Your task to perform on an android device: Search for jbl flip 4 on target, select the first entry, add it to the cart, then select checkout. Image 0: 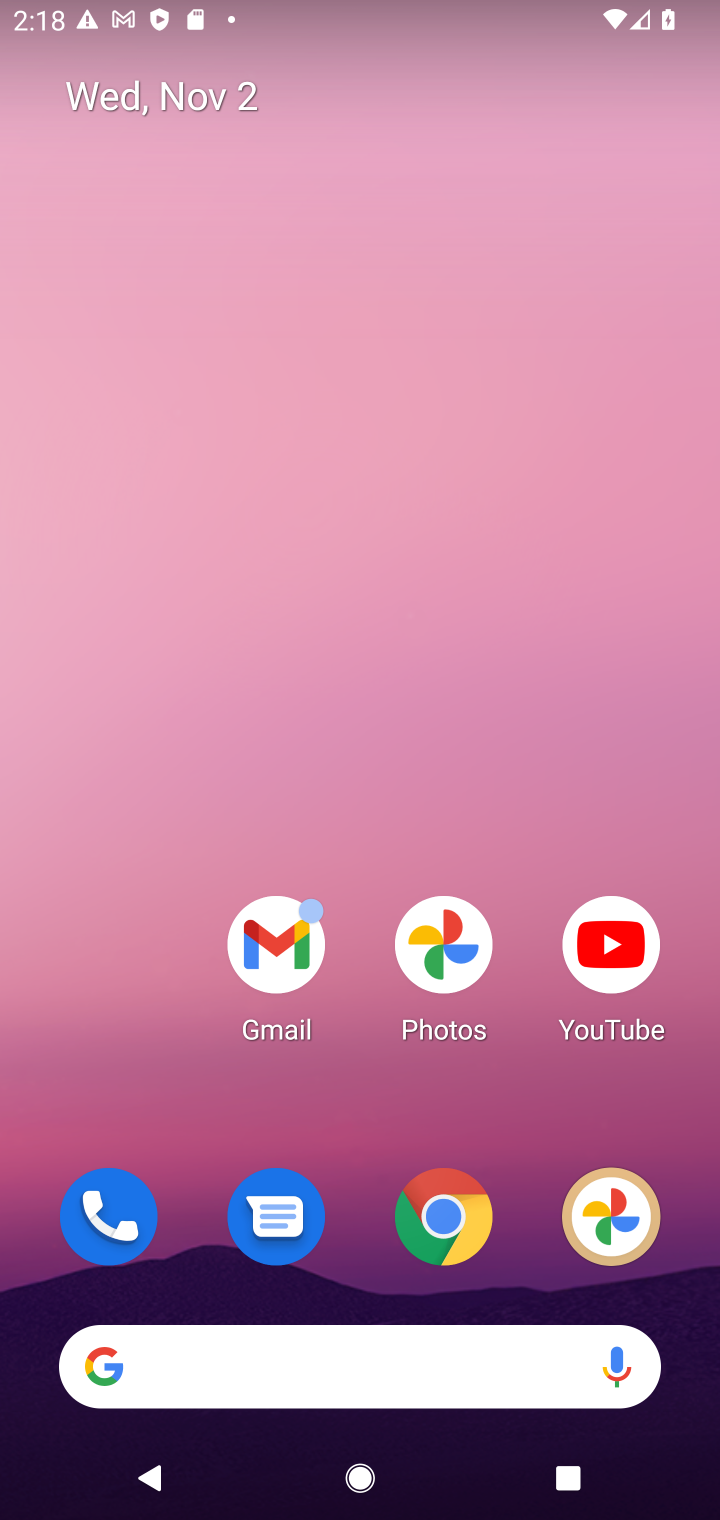
Step 0: click (444, 1206)
Your task to perform on an android device: Search for jbl flip 4 on target, select the first entry, add it to the cart, then select checkout. Image 1: 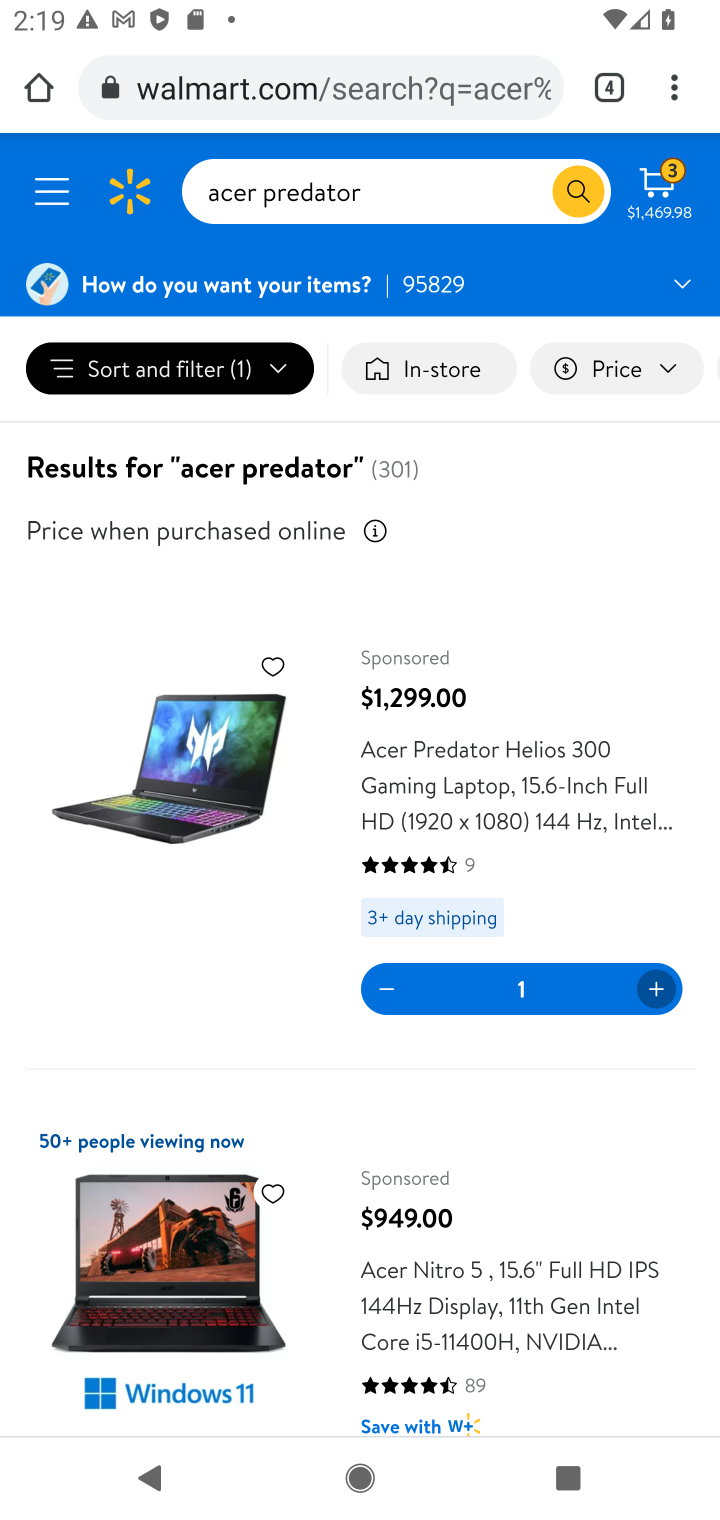
Step 1: click (615, 78)
Your task to perform on an android device: Search for jbl flip 4 on target, select the first entry, add it to the cart, then select checkout. Image 2: 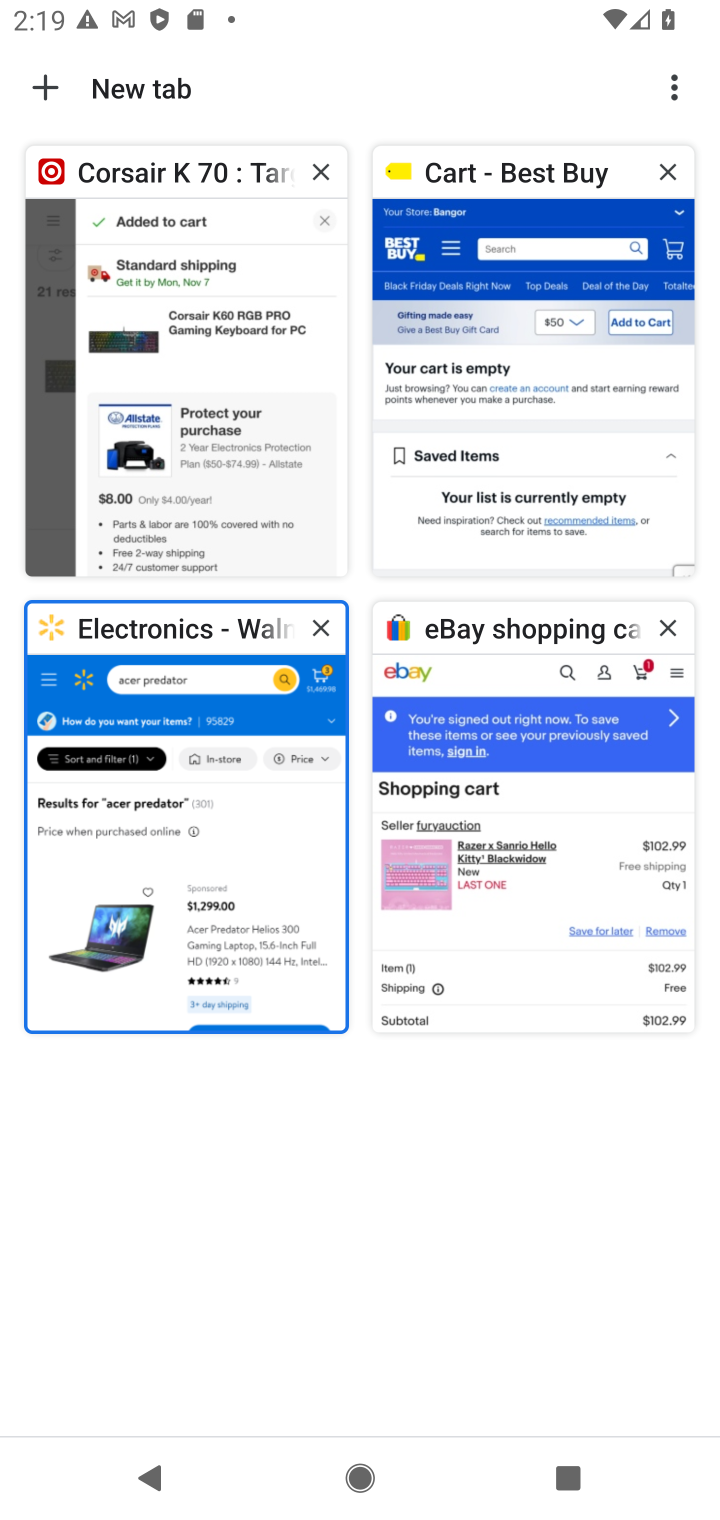
Step 2: click (200, 306)
Your task to perform on an android device: Search for jbl flip 4 on target, select the first entry, add it to the cart, then select checkout. Image 3: 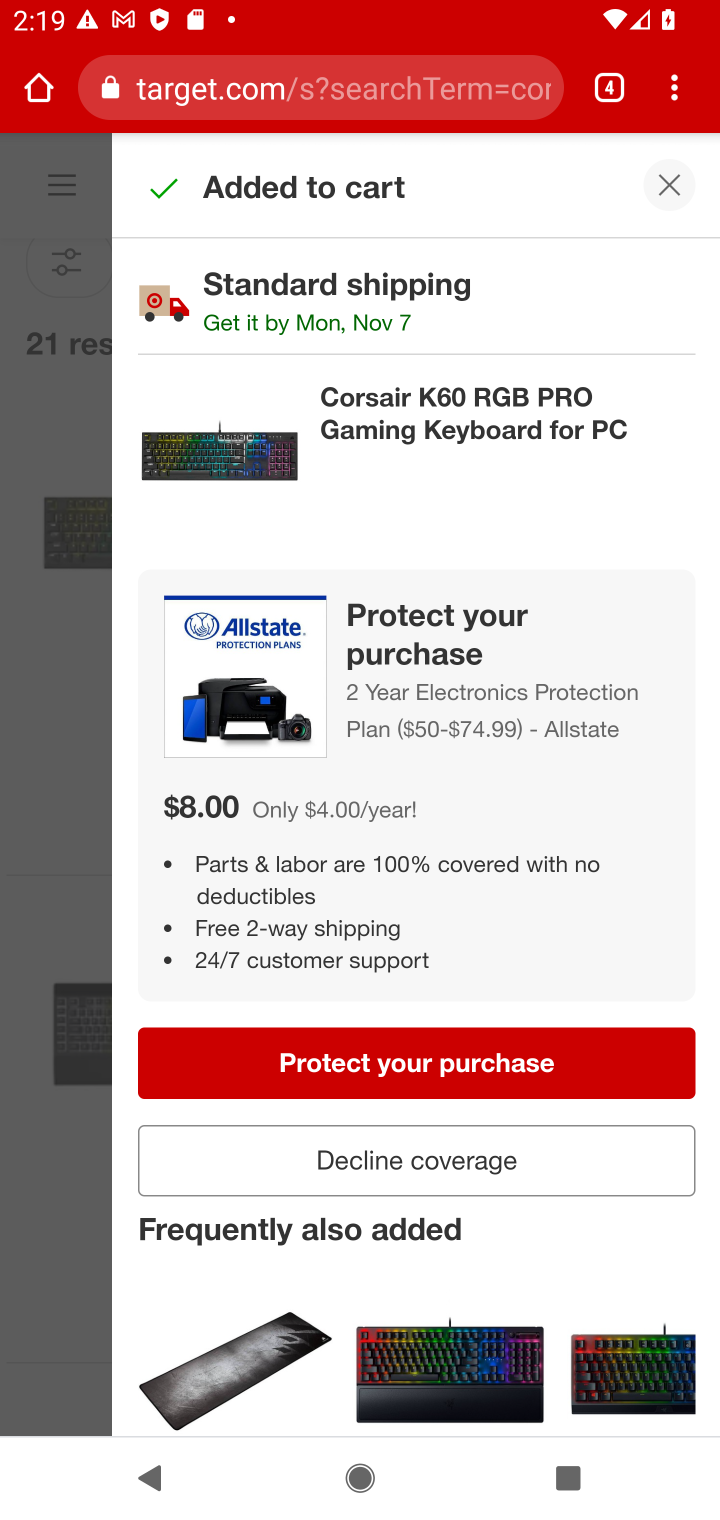
Step 3: click (668, 185)
Your task to perform on an android device: Search for jbl flip 4 on target, select the first entry, add it to the cart, then select checkout. Image 4: 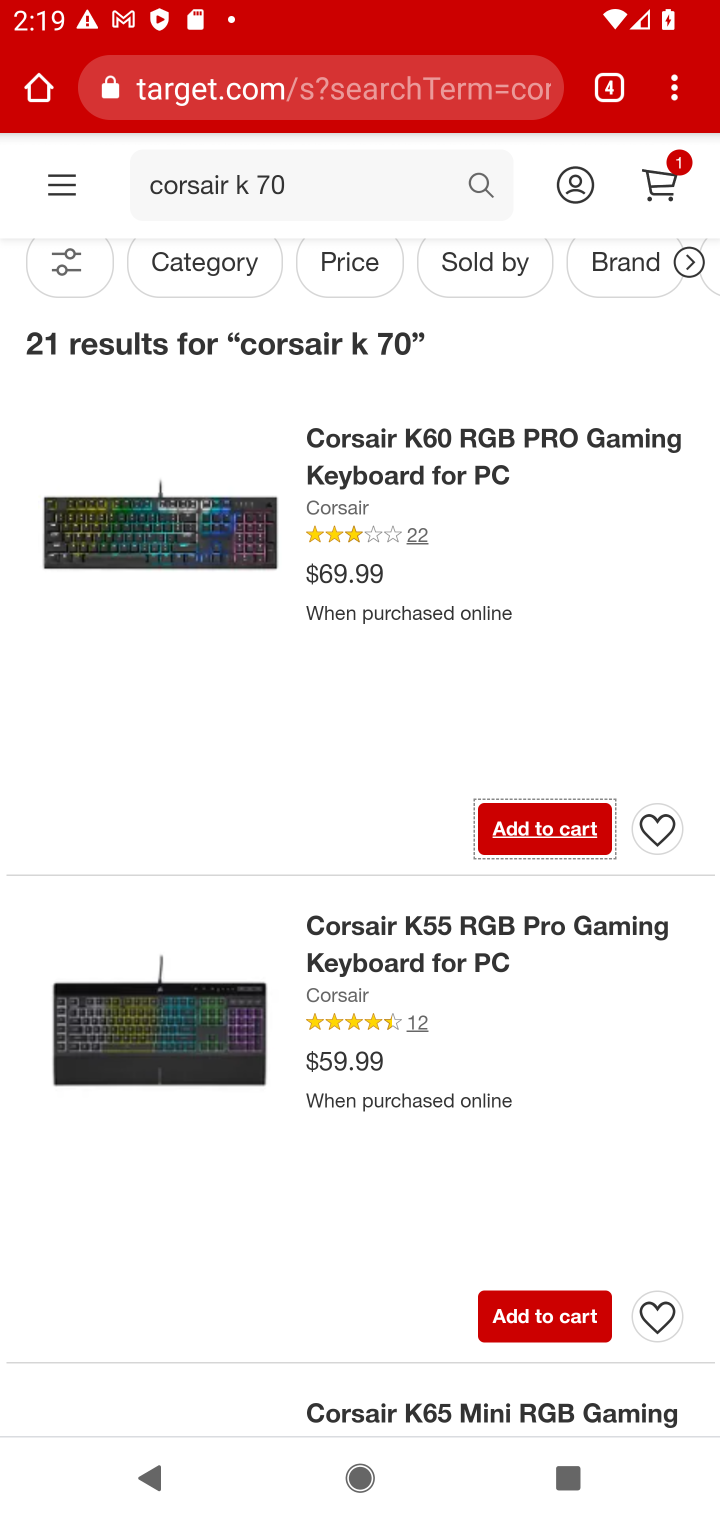
Step 4: click (405, 188)
Your task to perform on an android device: Search for jbl flip 4 on target, select the first entry, add it to the cart, then select checkout. Image 5: 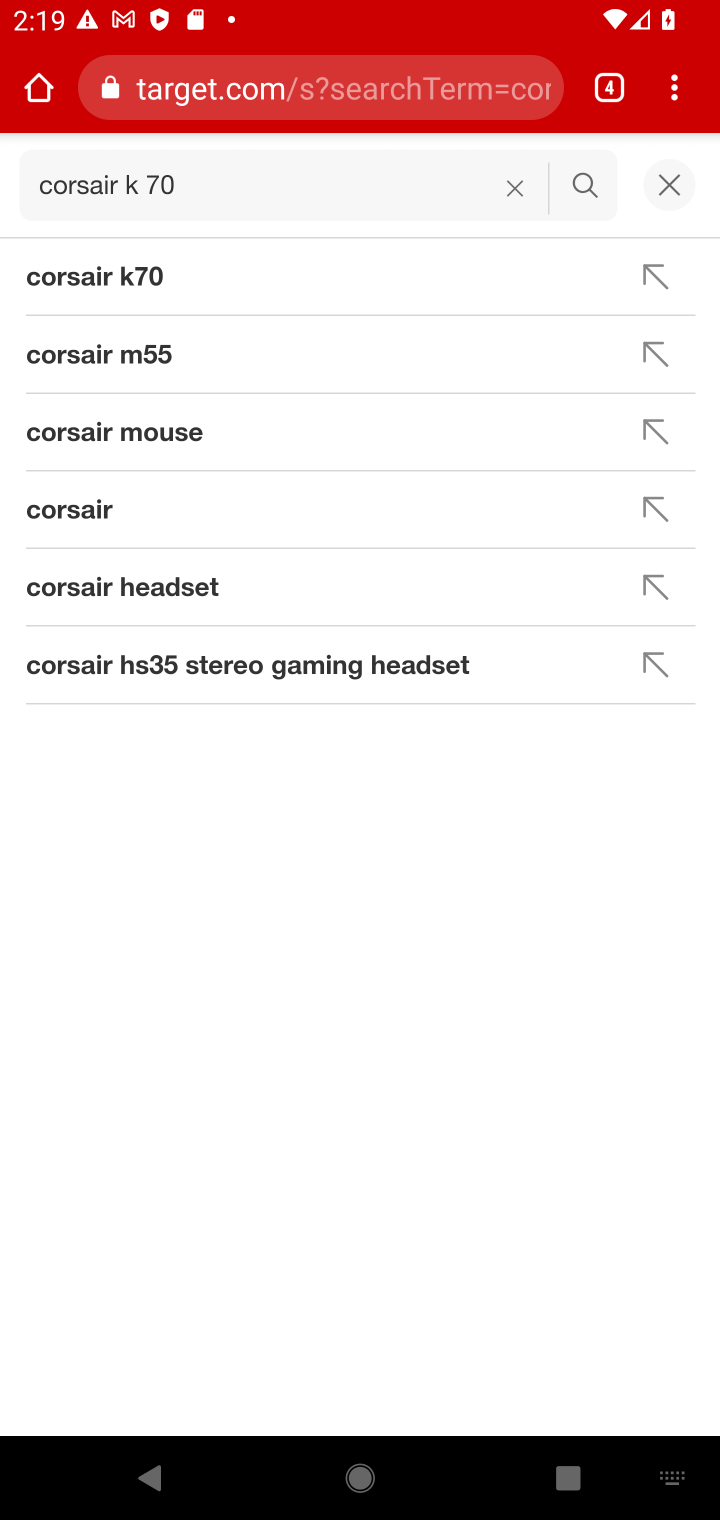
Step 5: click (514, 188)
Your task to perform on an android device: Search for jbl flip 4 on target, select the first entry, add it to the cart, then select checkout. Image 6: 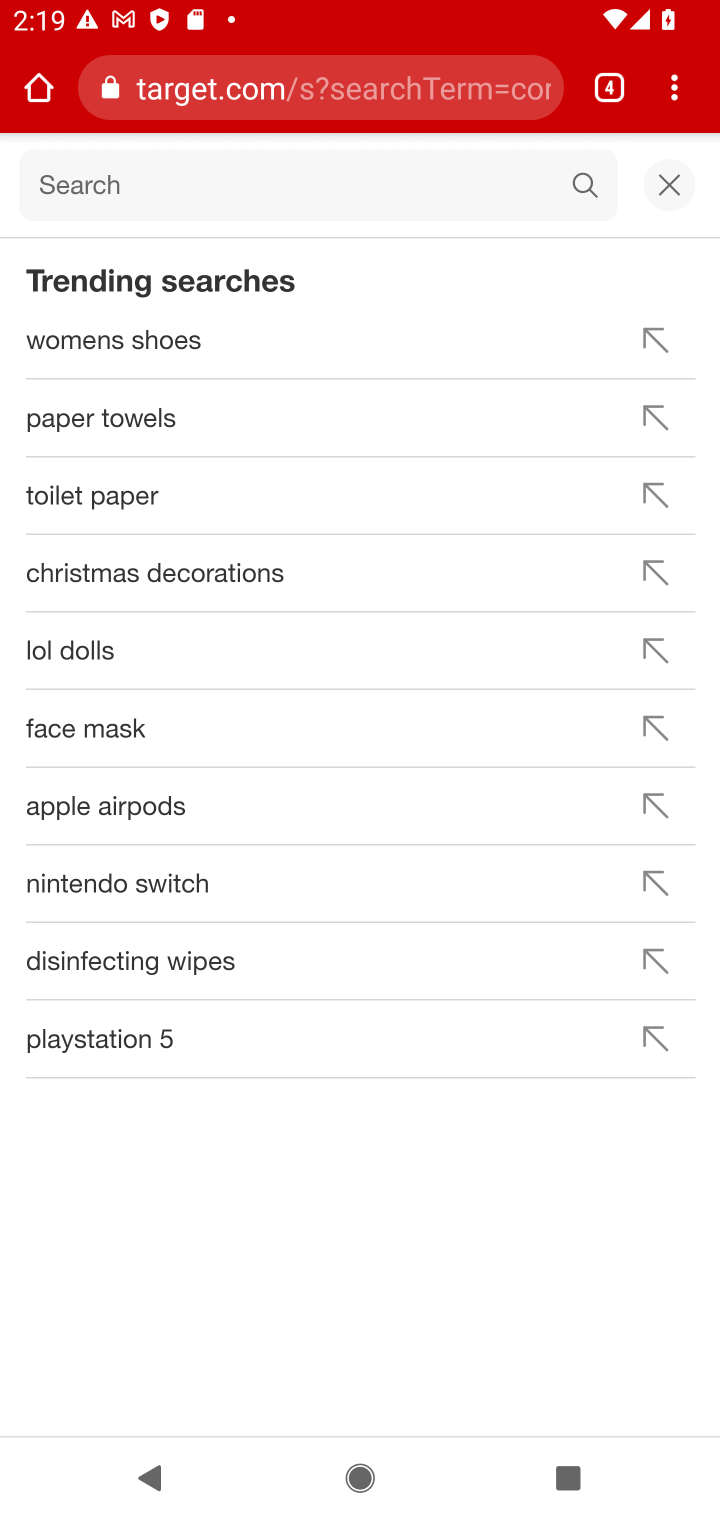
Step 6: click (248, 177)
Your task to perform on an android device: Search for jbl flip 4 on target, select the first entry, add it to the cart, then select checkout. Image 7: 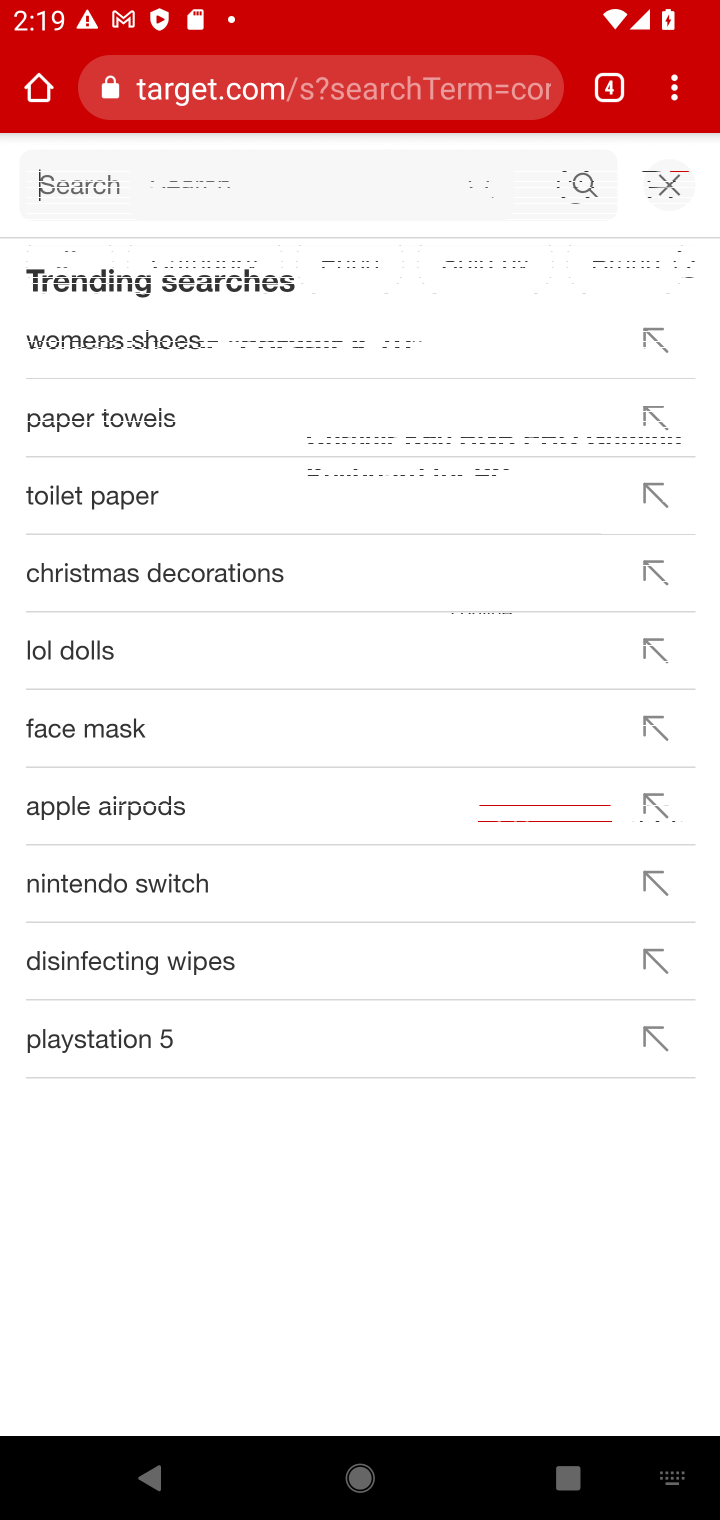
Step 7: type "jbl flip 4"
Your task to perform on an android device: Search for jbl flip 4 on target, select the first entry, add it to the cart, then select checkout. Image 8: 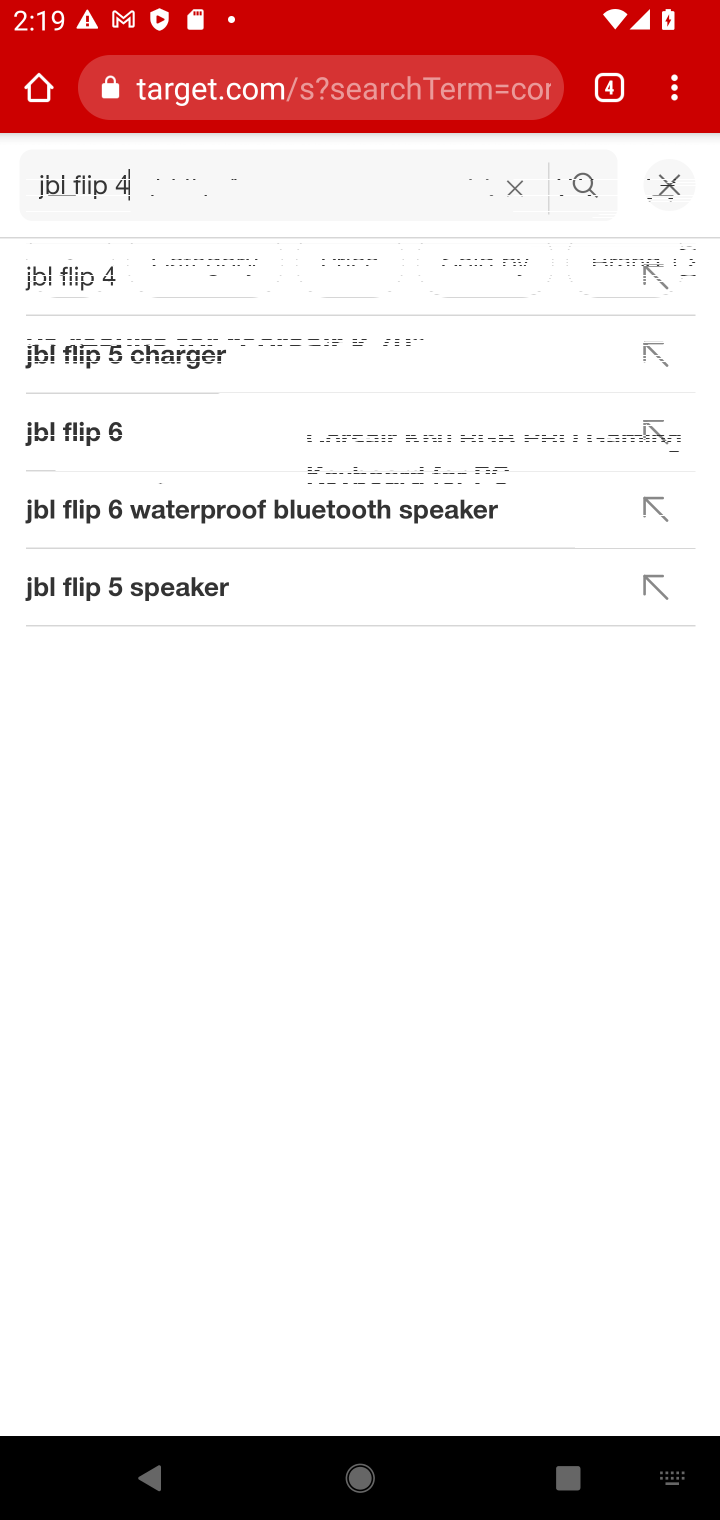
Step 8: click (77, 271)
Your task to perform on an android device: Search for jbl flip 4 on target, select the first entry, add it to the cart, then select checkout. Image 9: 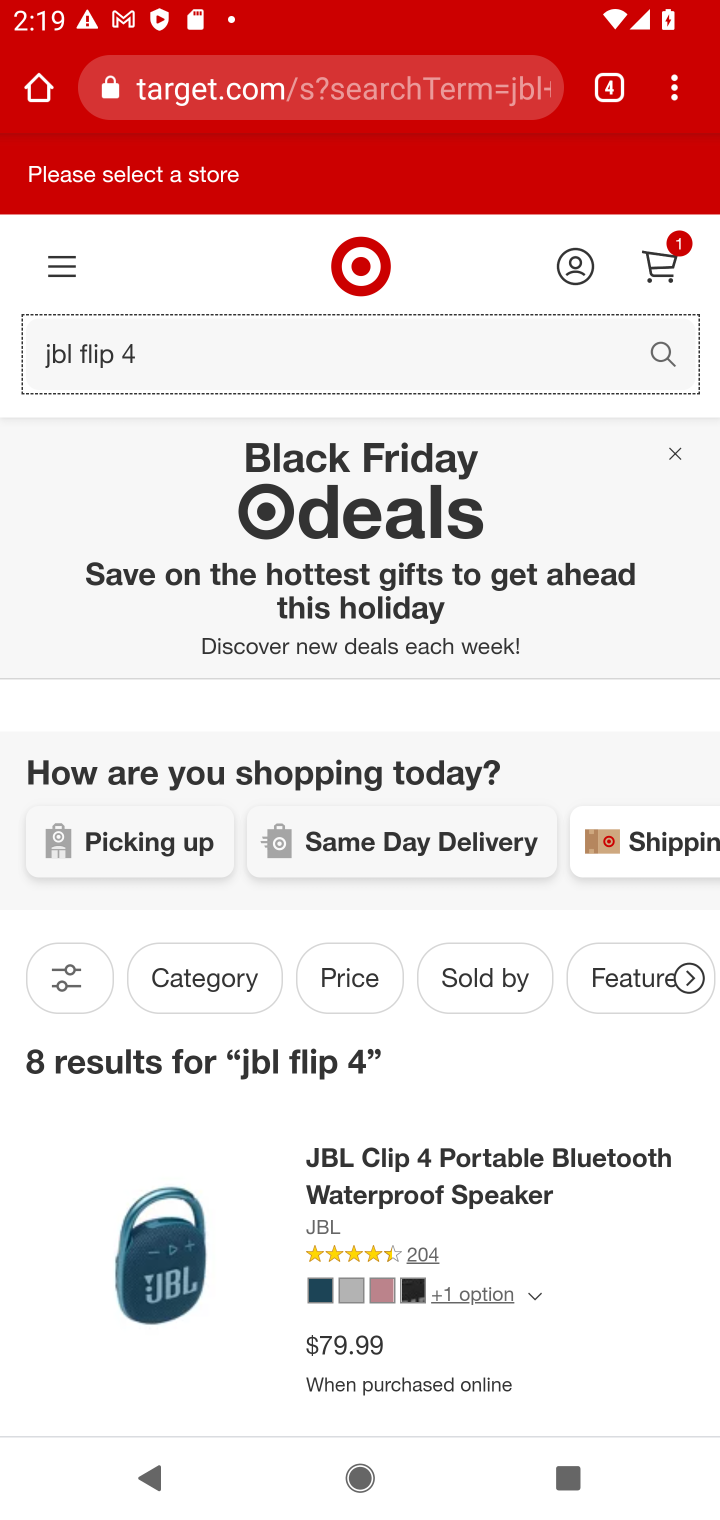
Step 9: drag from (514, 1272) to (467, 909)
Your task to perform on an android device: Search for jbl flip 4 on target, select the first entry, add it to the cart, then select checkout. Image 10: 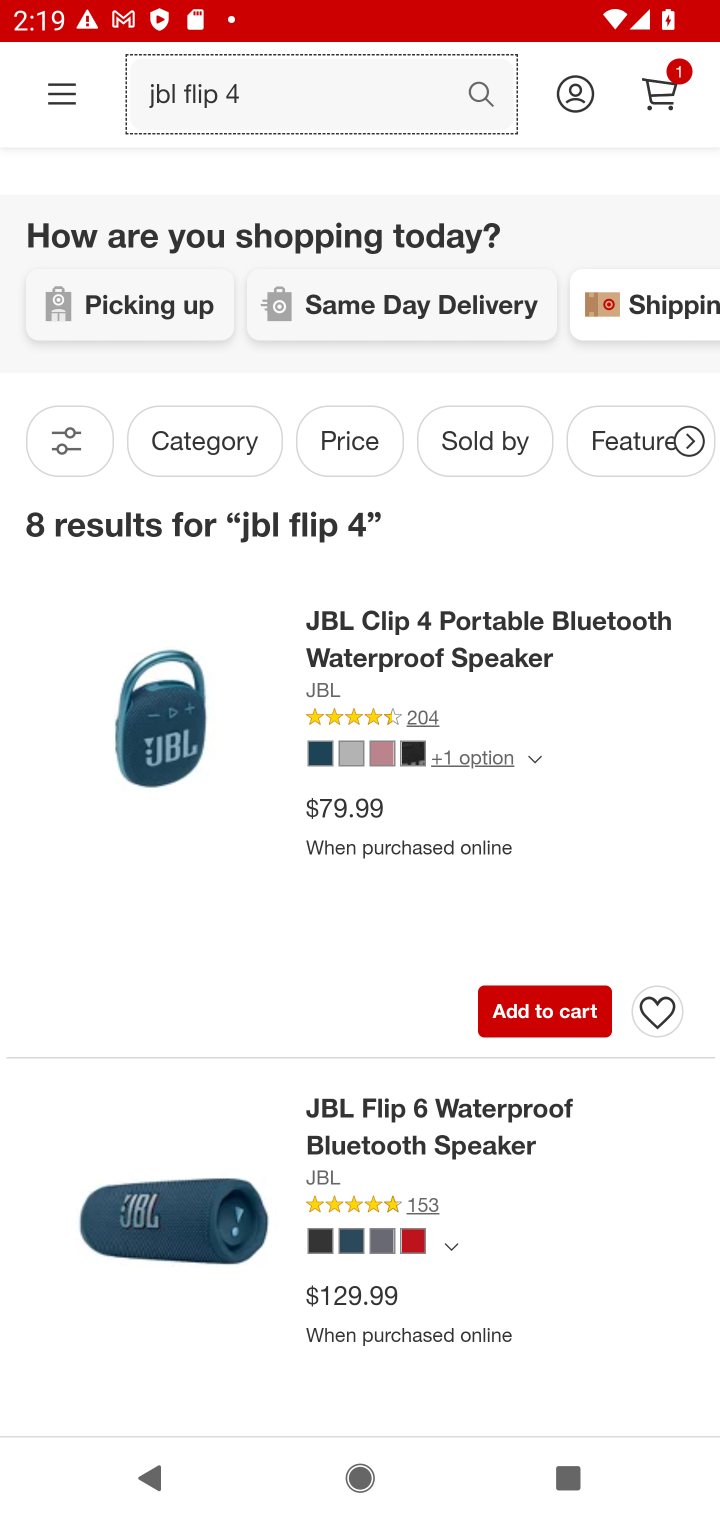
Step 10: click (551, 1018)
Your task to perform on an android device: Search for jbl flip 4 on target, select the first entry, add it to the cart, then select checkout. Image 11: 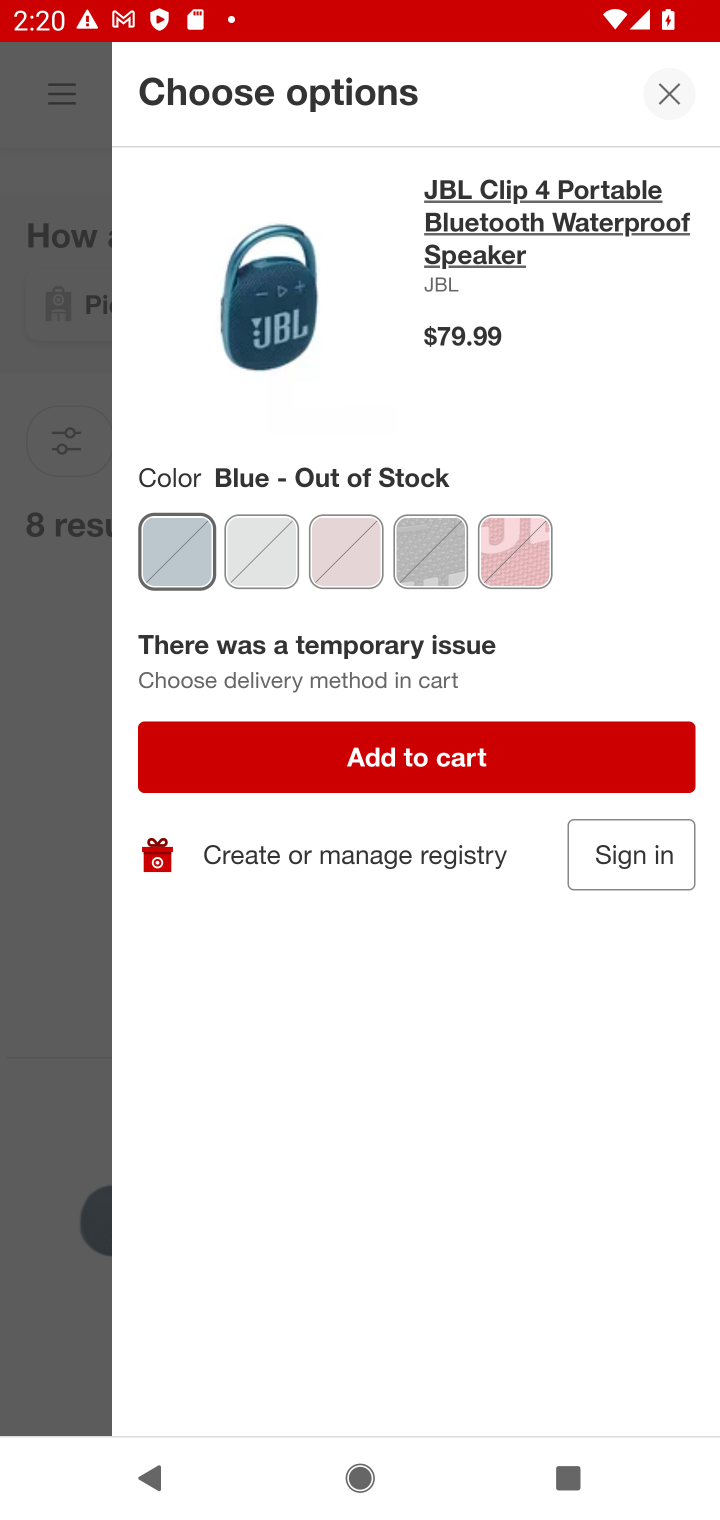
Step 11: click (489, 748)
Your task to perform on an android device: Search for jbl flip 4 on target, select the first entry, add it to the cart, then select checkout. Image 12: 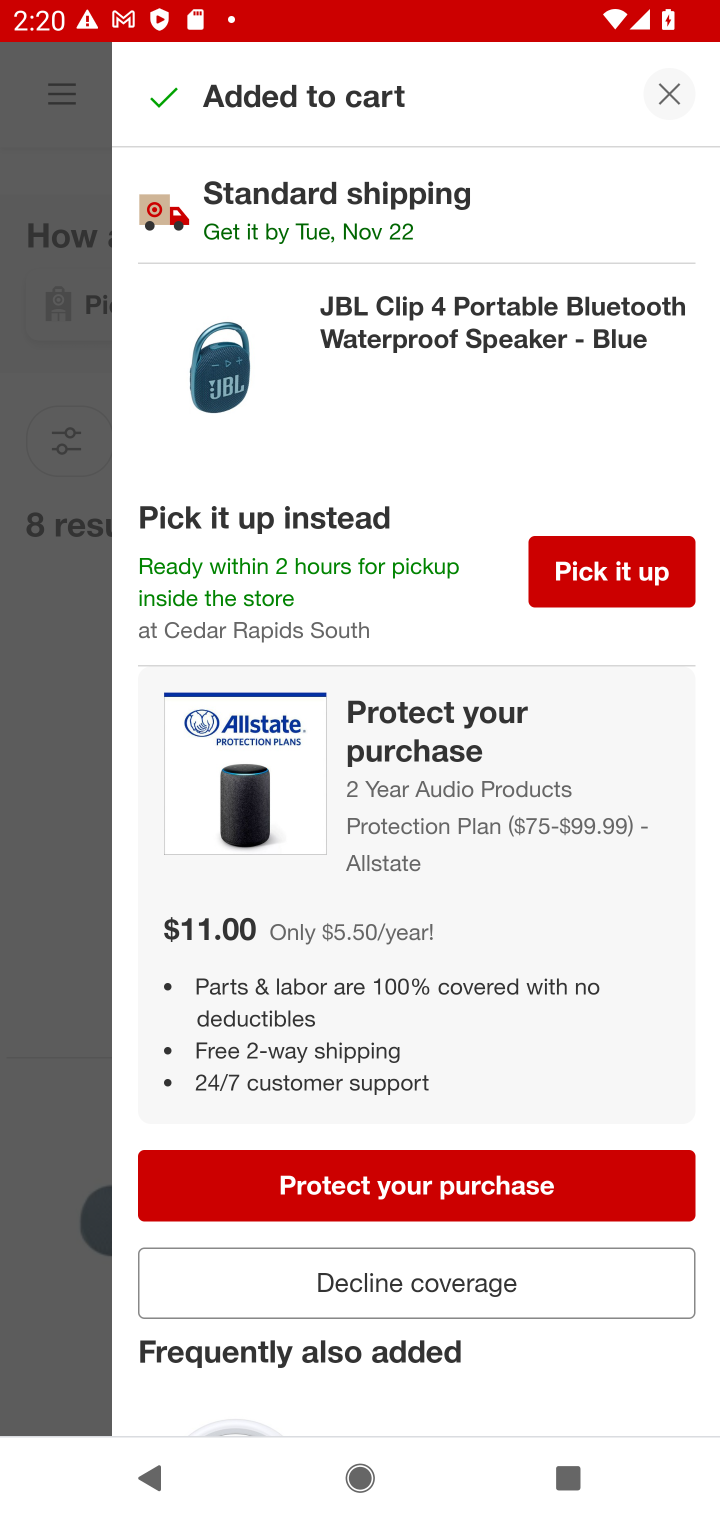
Step 12: click (501, 1273)
Your task to perform on an android device: Search for jbl flip 4 on target, select the first entry, add it to the cart, then select checkout. Image 13: 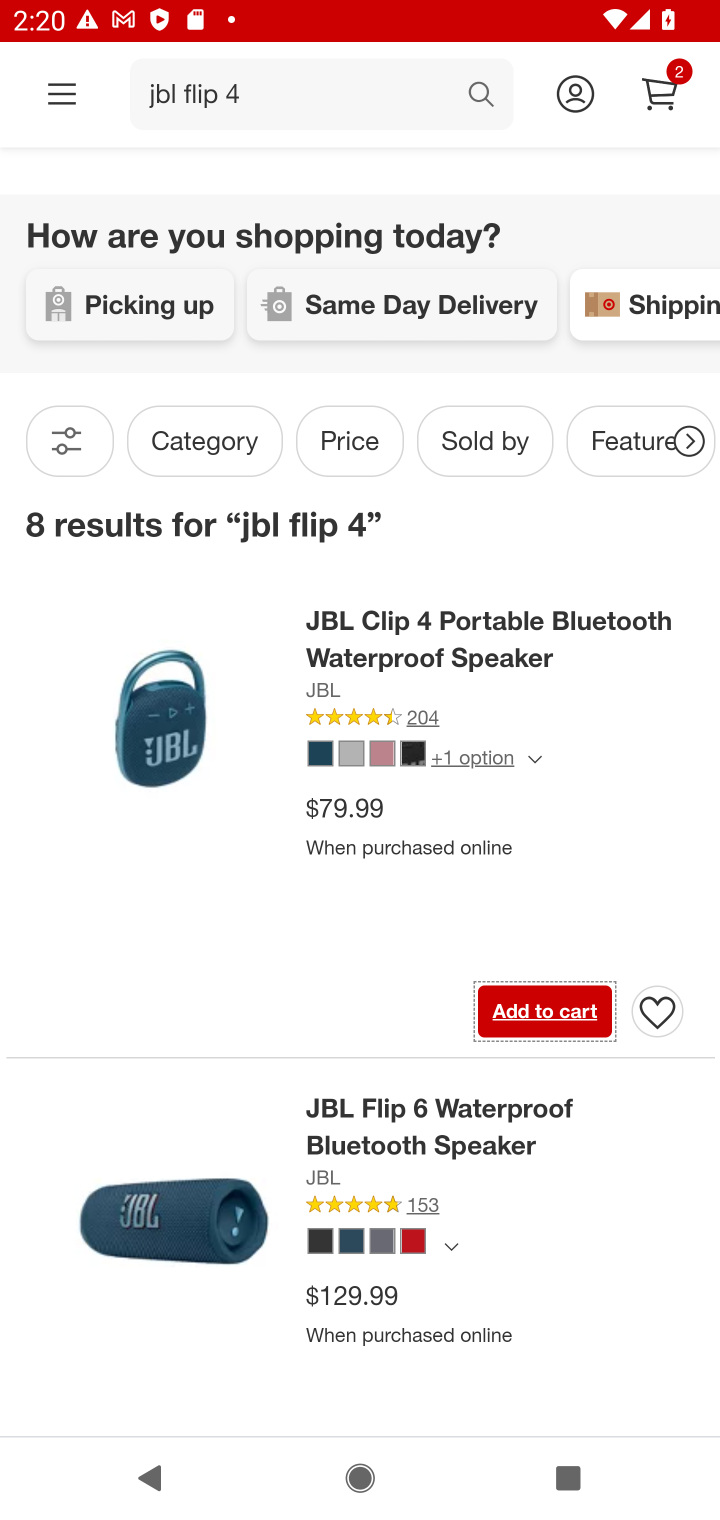
Step 13: click (671, 77)
Your task to perform on an android device: Search for jbl flip 4 on target, select the first entry, add it to the cart, then select checkout. Image 14: 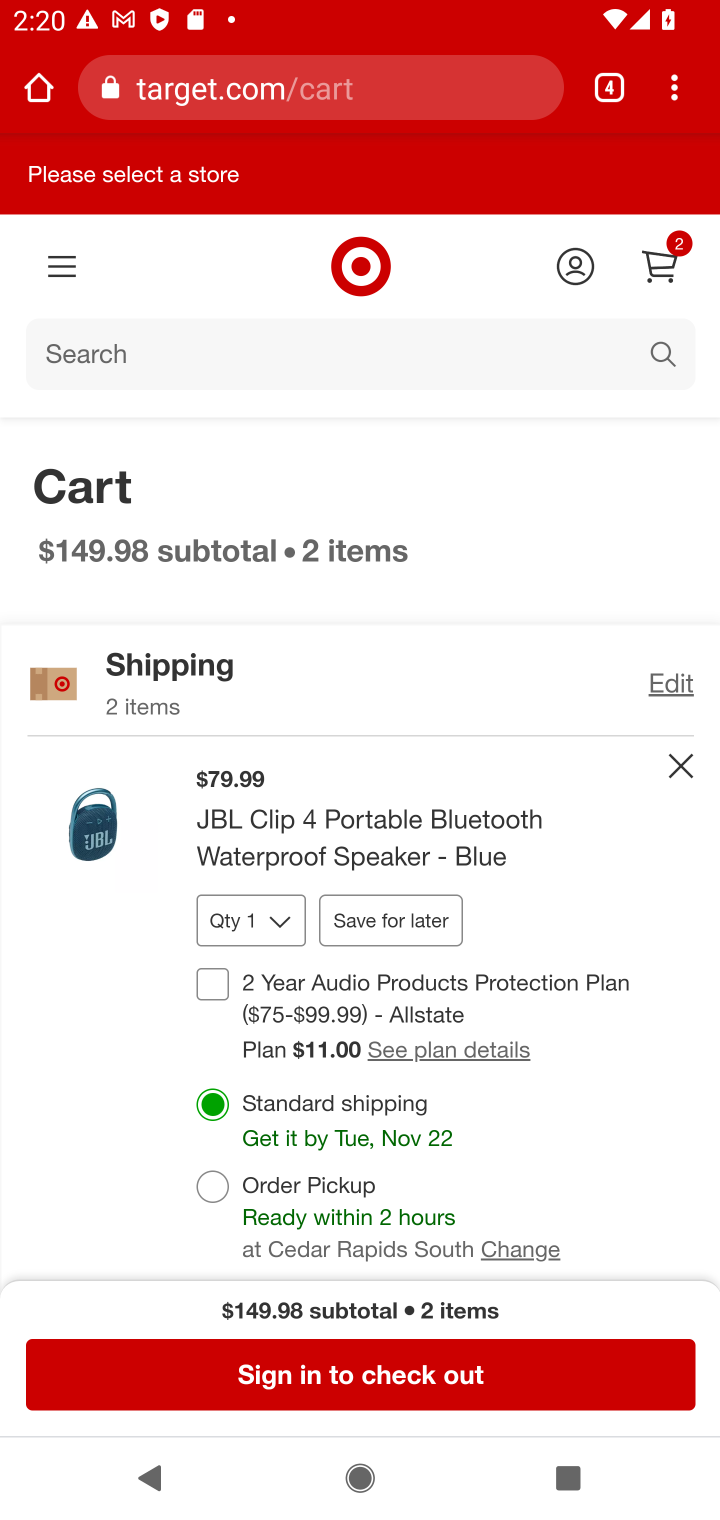
Step 14: click (481, 1370)
Your task to perform on an android device: Search for jbl flip 4 on target, select the first entry, add it to the cart, then select checkout. Image 15: 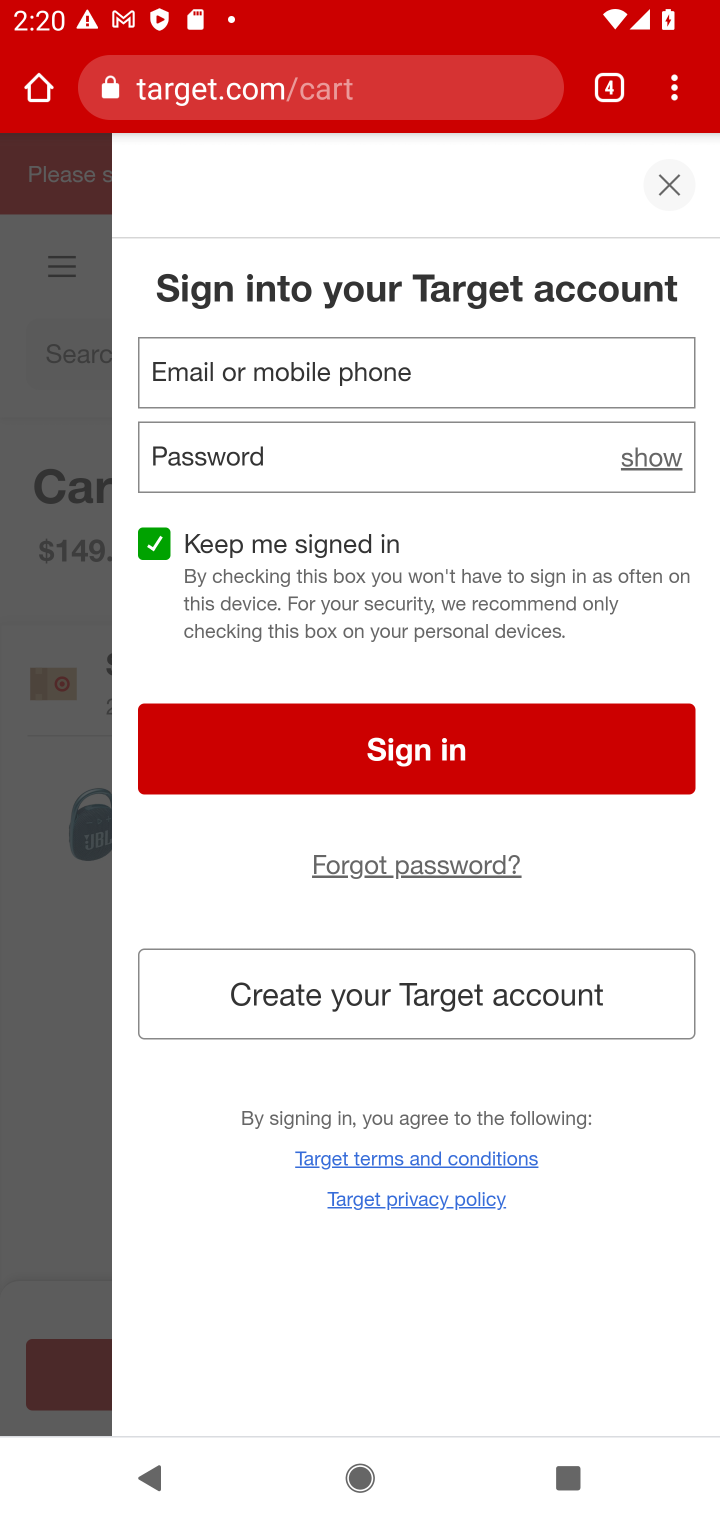
Step 15: task complete